Your task to perform on an android device: toggle location history Image 0: 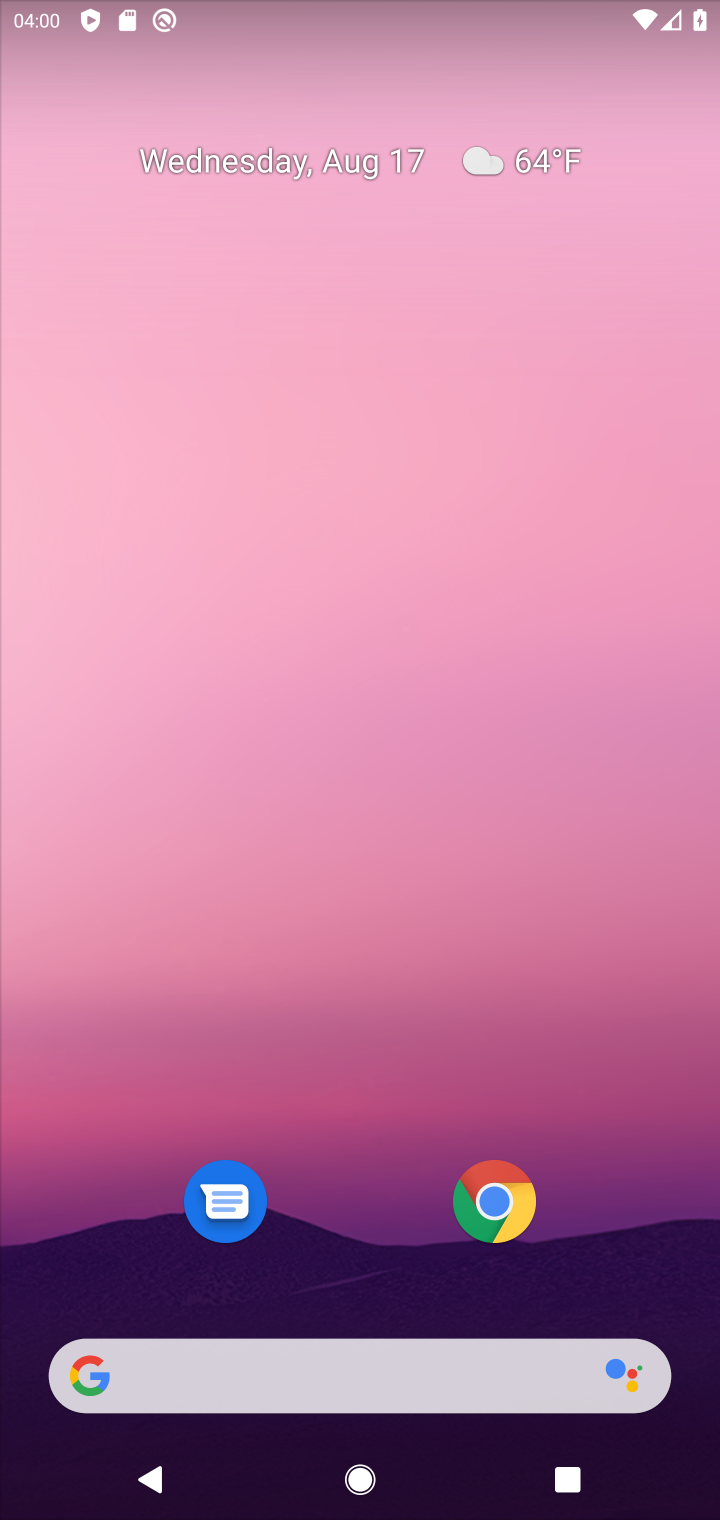
Step 0: drag from (340, 1295) to (196, 228)
Your task to perform on an android device: toggle location history Image 1: 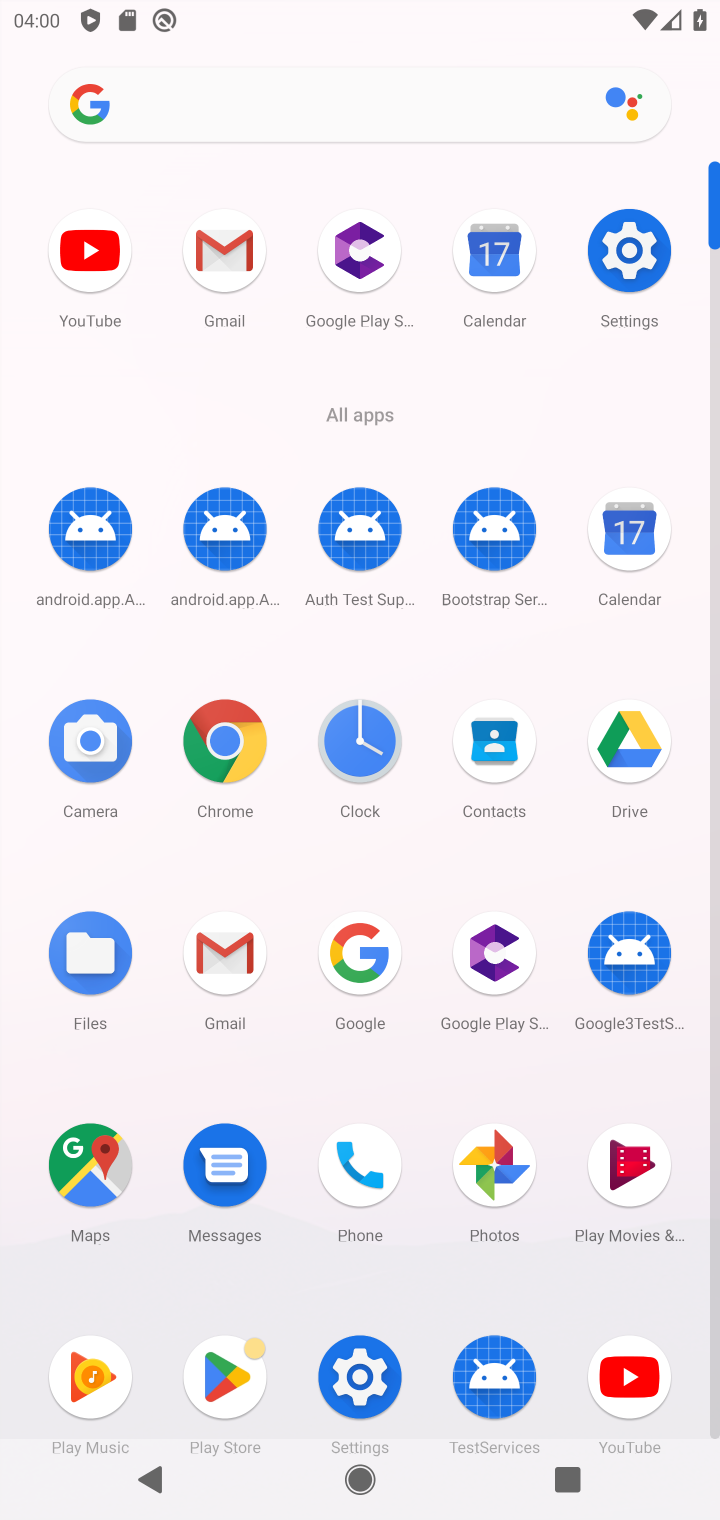
Step 1: click (368, 1375)
Your task to perform on an android device: toggle location history Image 2: 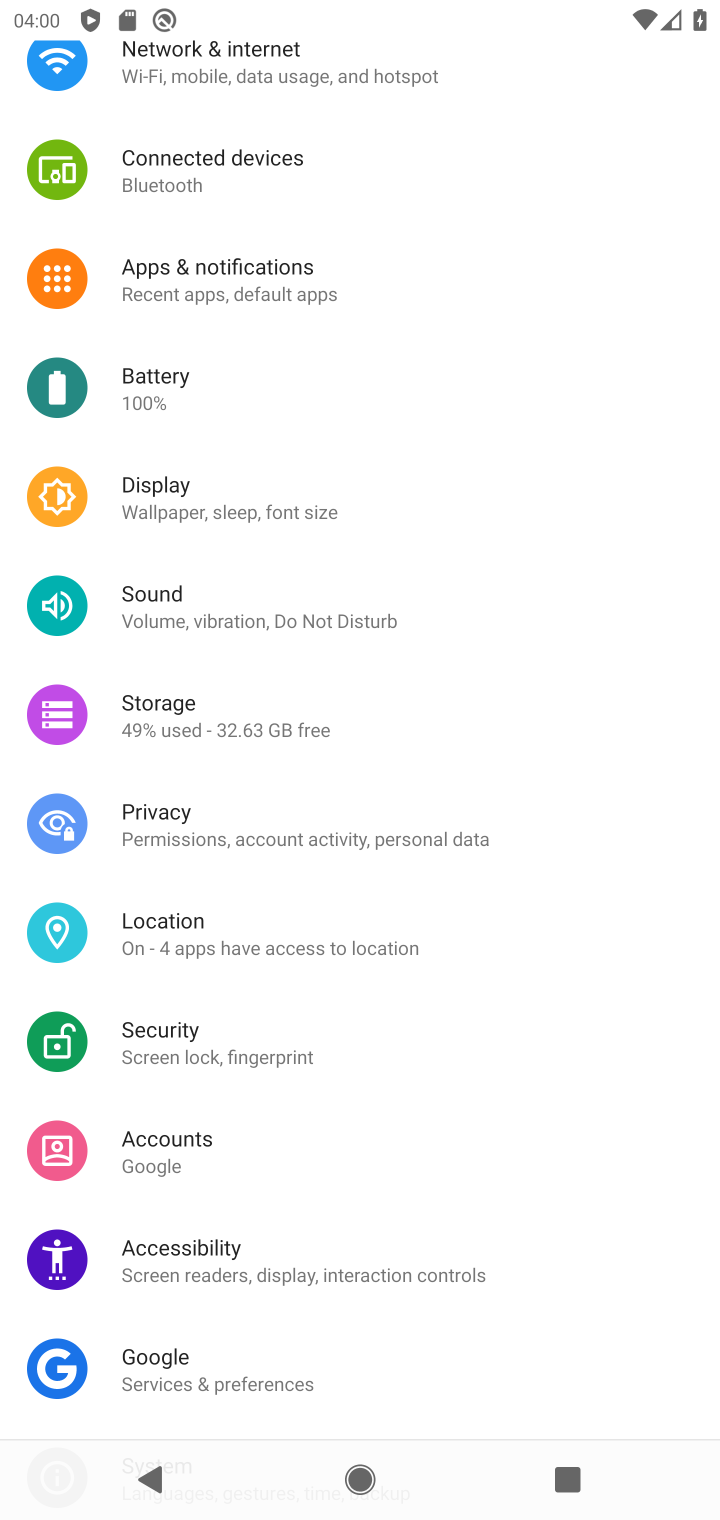
Step 2: click (263, 950)
Your task to perform on an android device: toggle location history Image 3: 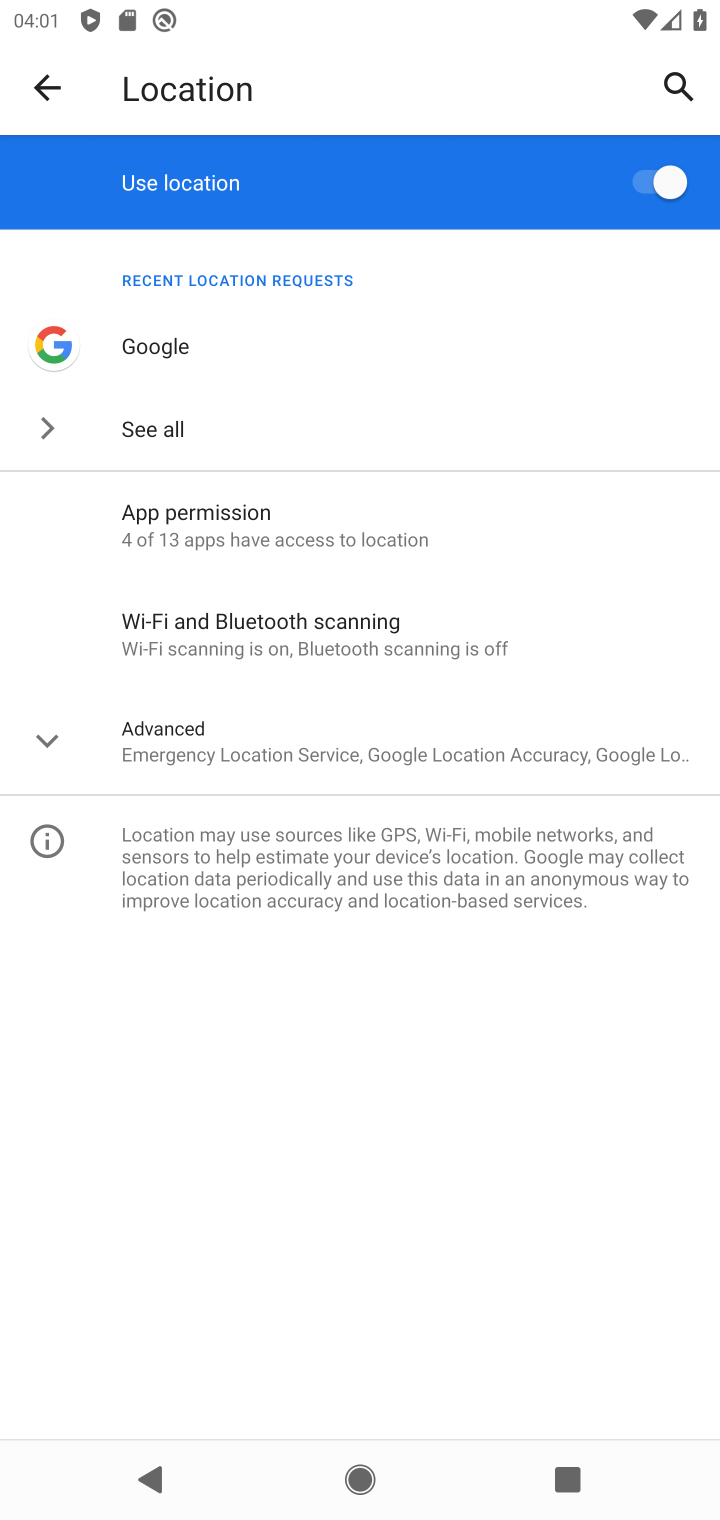
Step 3: click (221, 750)
Your task to perform on an android device: toggle location history Image 4: 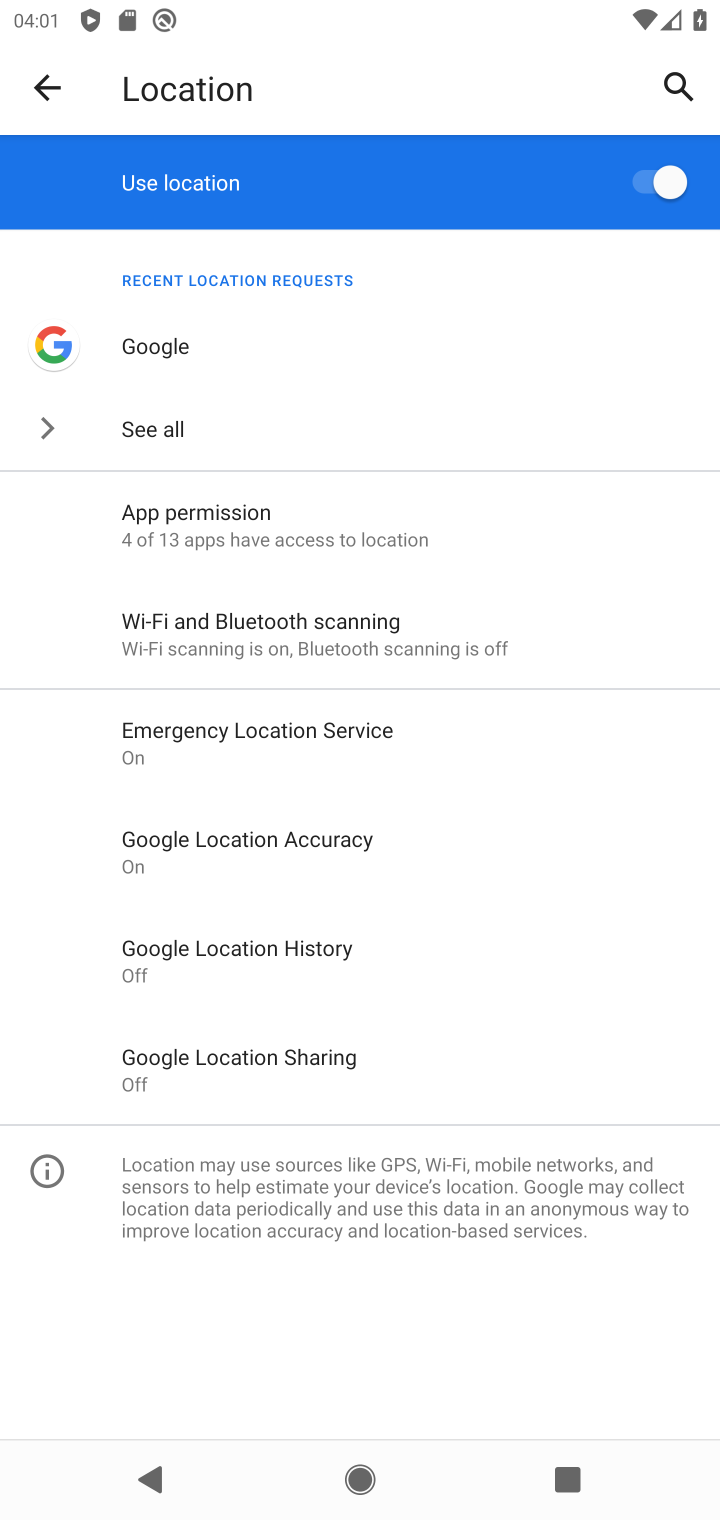
Step 4: click (289, 963)
Your task to perform on an android device: toggle location history Image 5: 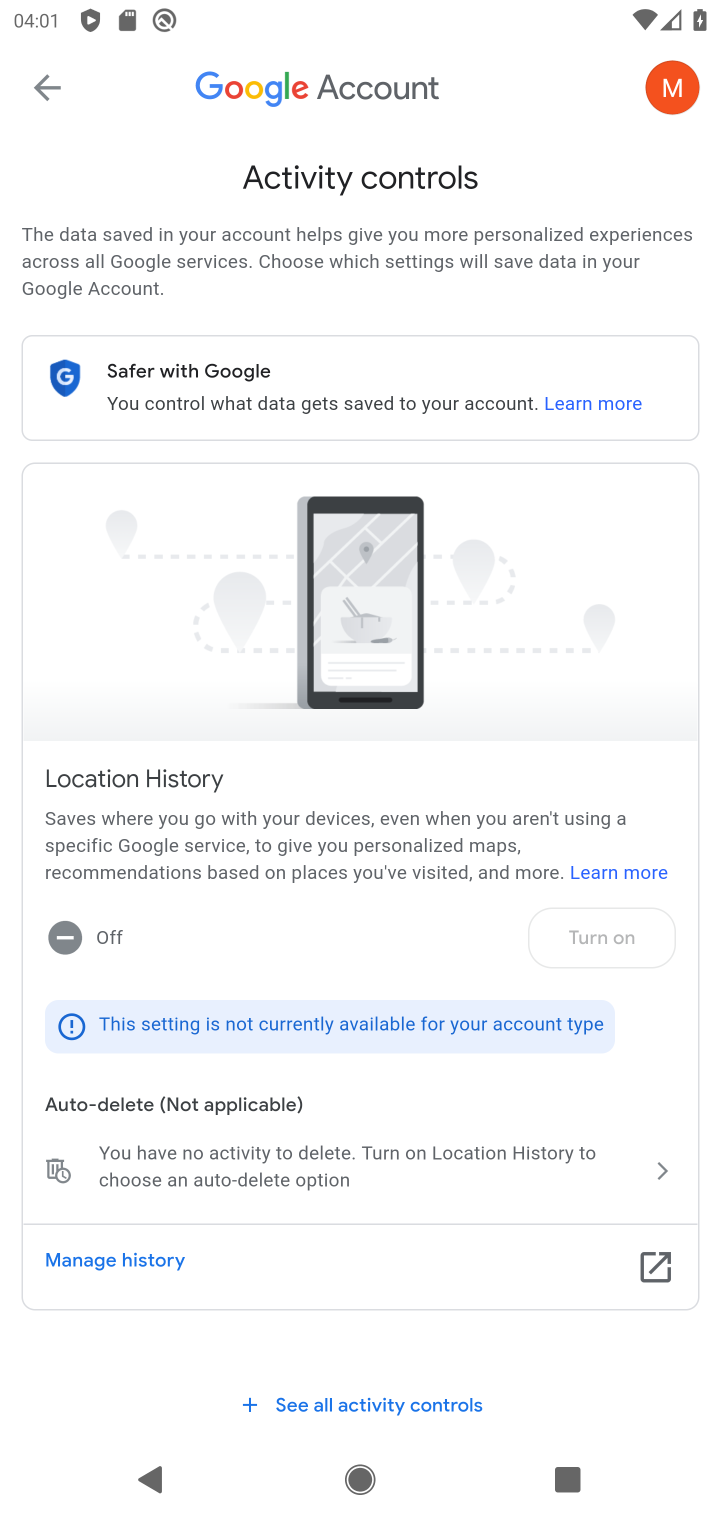
Step 5: task complete